Your task to perform on an android device: check google app version Image 0: 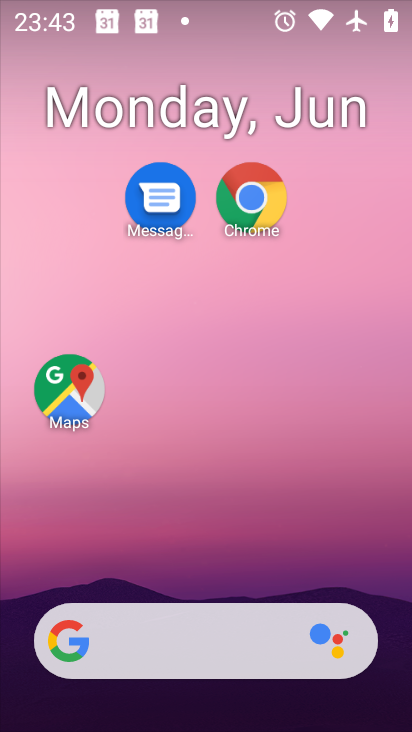
Step 0: drag from (201, 569) to (205, 189)
Your task to perform on an android device: check google app version Image 1: 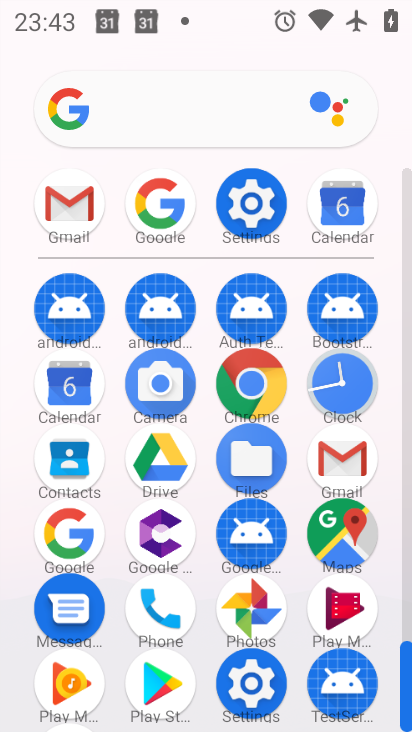
Step 1: click (178, 198)
Your task to perform on an android device: check google app version Image 2: 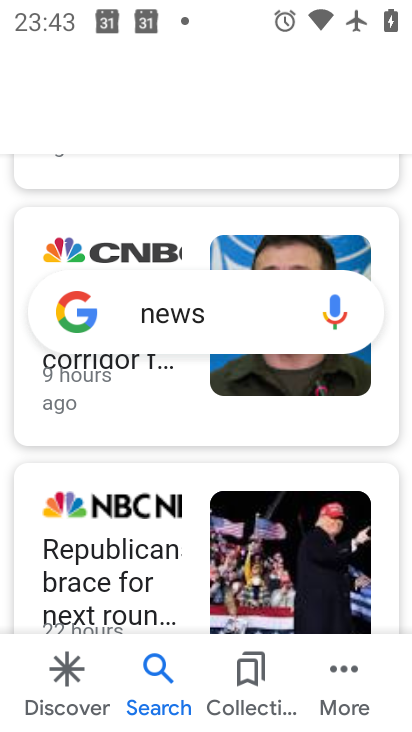
Step 2: click (345, 691)
Your task to perform on an android device: check google app version Image 3: 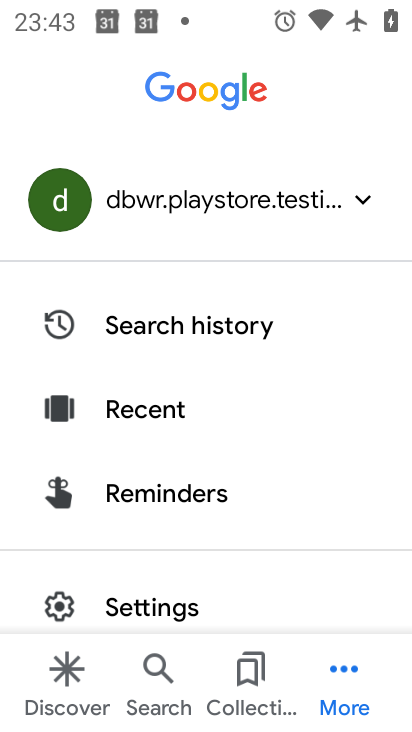
Step 3: drag from (251, 569) to (251, 243)
Your task to perform on an android device: check google app version Image 4: 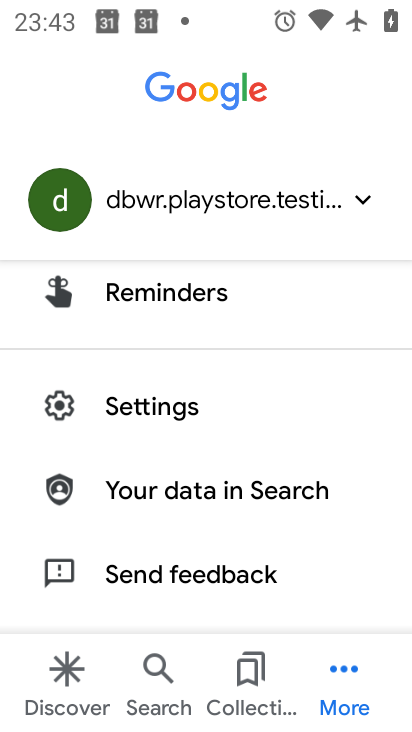
Step 4: click (206, 399)
Your task to perform on an android device: check google app version Image 5: 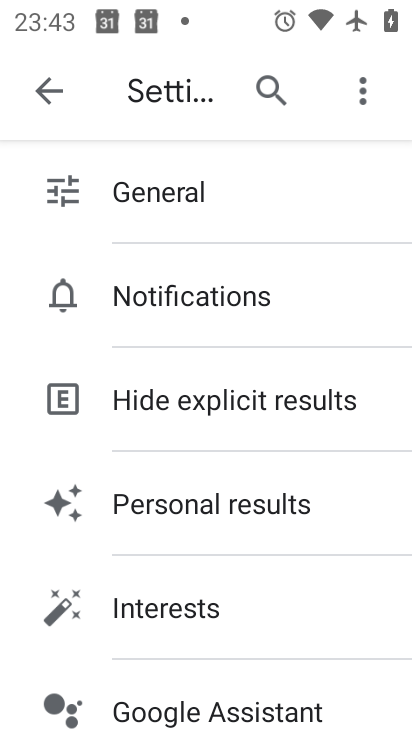
Step 5: drag from (167, 655) to (168, 312)
Your task to perform on an android device: check google app version Image 6: 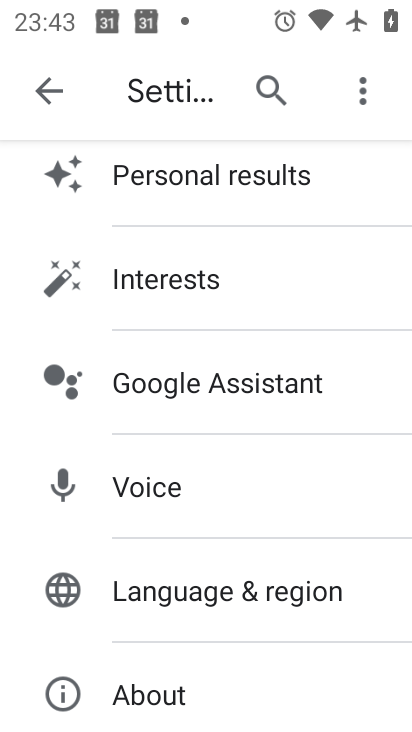
Step 6: drag from (209, 611) to (209, 397)
Your task to perform on an android device: check google app version Image 7: 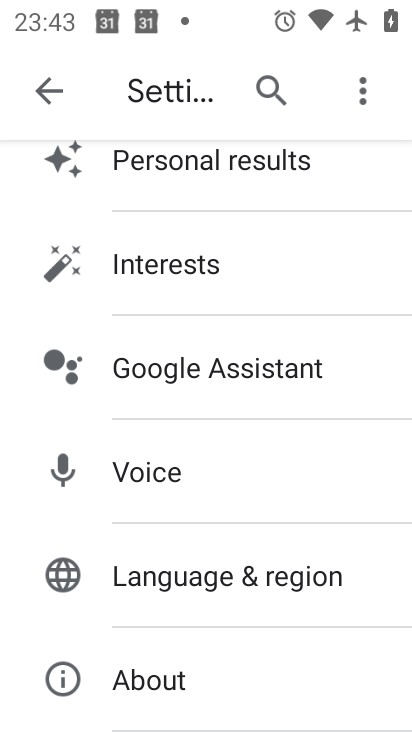
Step 7: click (163, 662)
Your task to perform on an android device: check google app version Image 8: 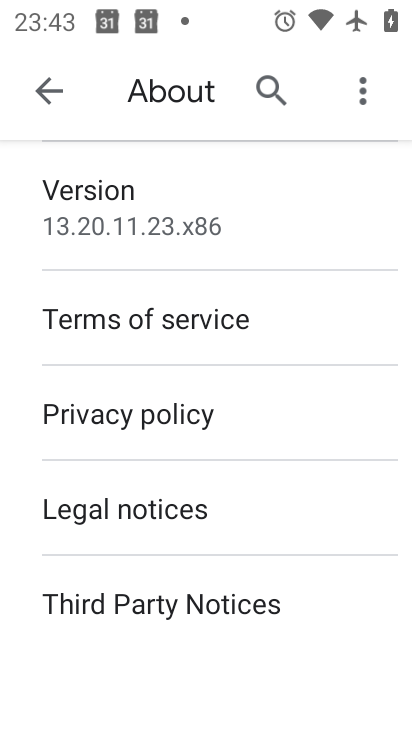
Step 8: click (169, 227)
Your task to perform on an android device: check google app version Image 9: 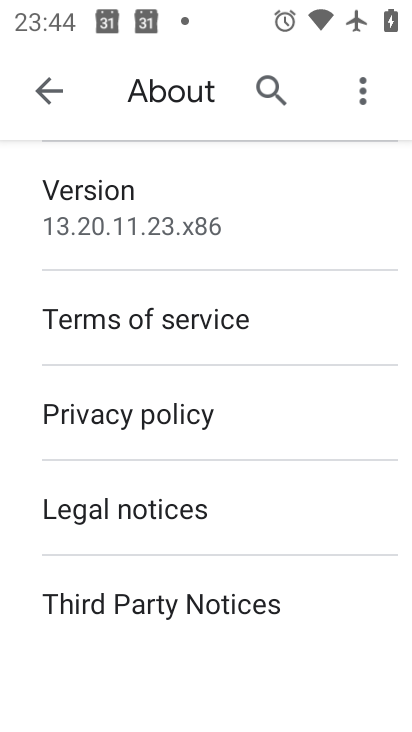
Step 9: click (169, 227)
Your task to perform on an android device: check google app version Image 10: 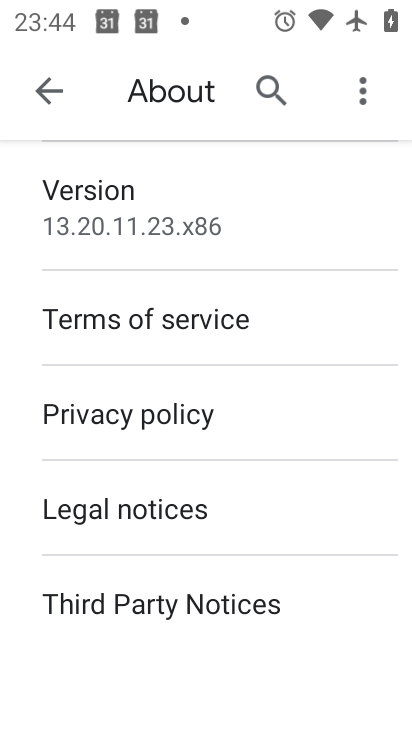
Step 10: click (258, 240)
Your task to perform on an android device: check google app version Image 11: 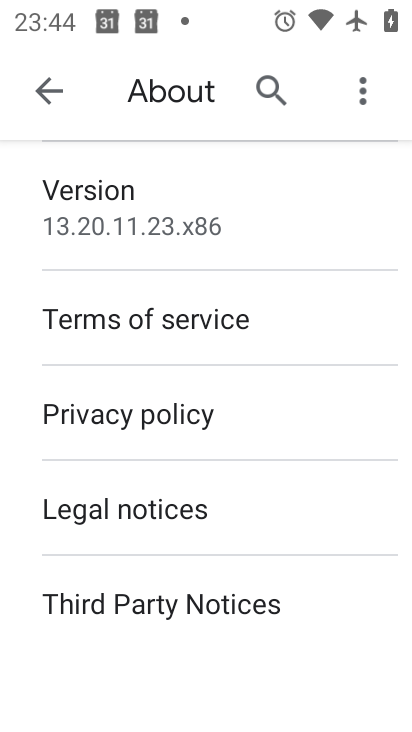
Step 11: task complete